Your task to perform on an android device: clear all cookies in the chrome app Image 0: 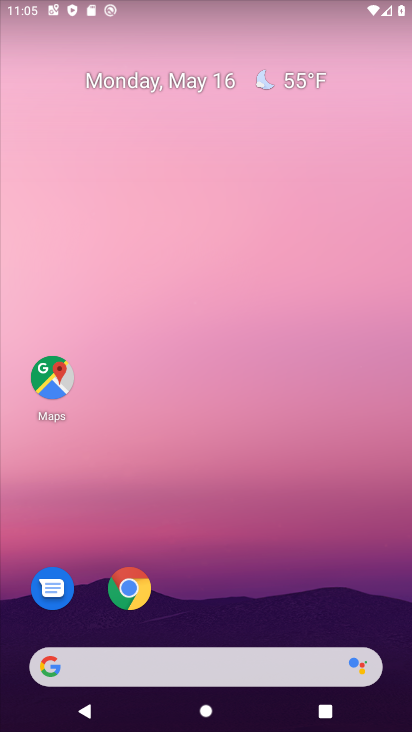
Step 0: drag from (355, 594) to (340, 143)
Your task to perform on an android device: clear all cookies in the chrome app Image 1: 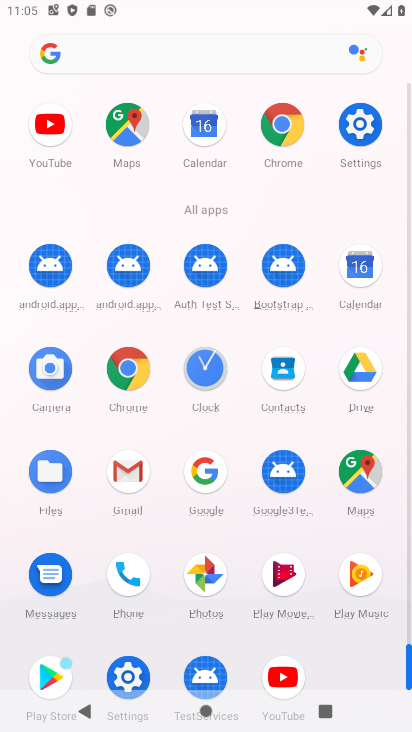
Step 1: click (288, 129)
Your task to perform on an android device: clear all cookies in the chrome app Image 2: 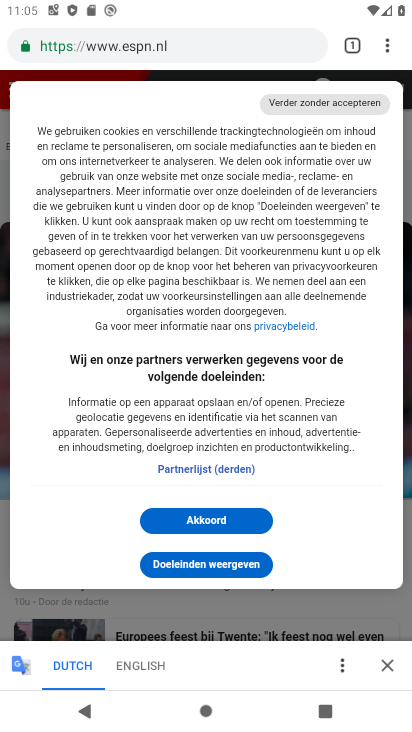
Step 2: click (388, 50)
Your task to perform on an android device: clear all cookies in the chrome app Image 3: 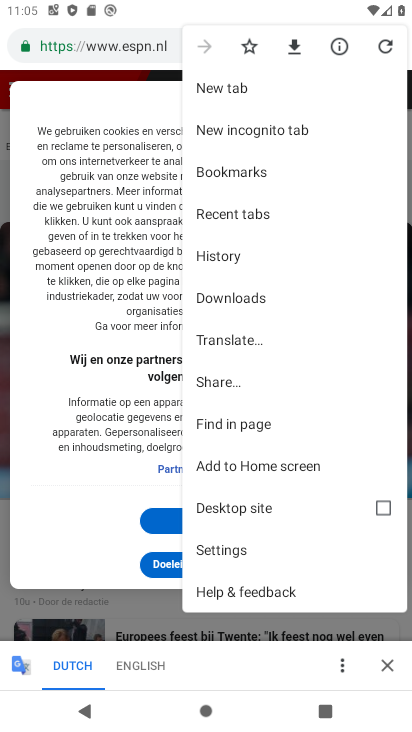
Step 3: click (222, 554)
Your task to perform on an android device: clear all cookies in the chrome app Image 4: 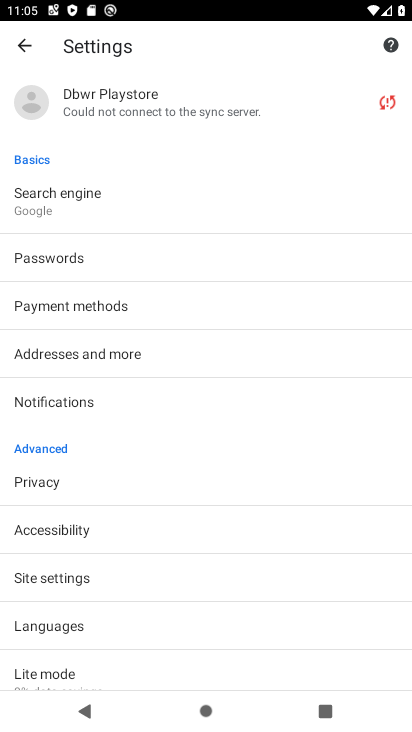
Step 4: click (222, 554)
Your task to perform on an android device: clear all cookies in the chrome app Image 5: 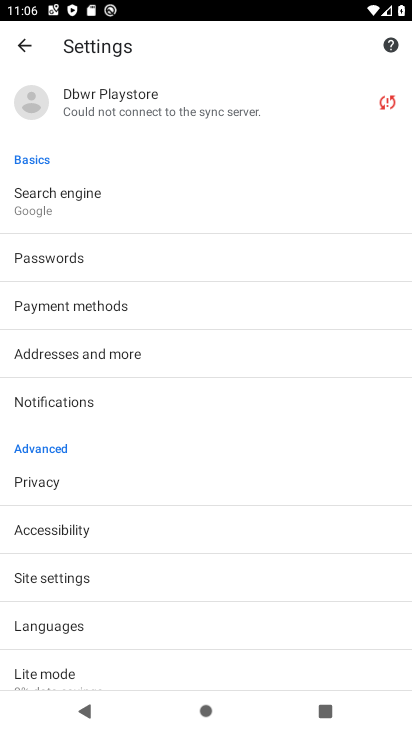
Step 5: click (120, 473)
Your task to perform on an android device: clear all cookies in the chrome app Image 6: 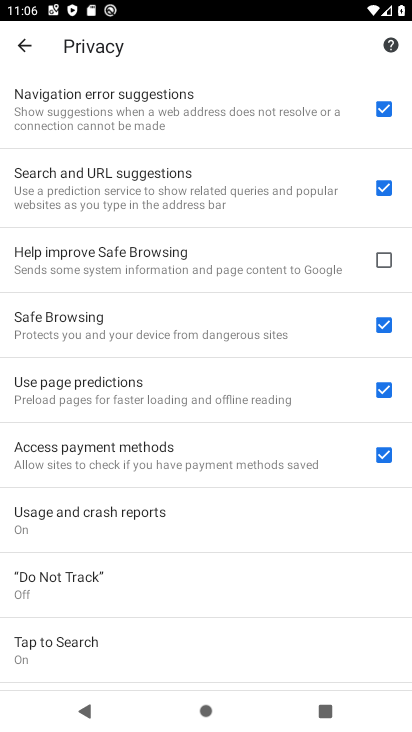
Step 6: drag from (269, 600) to (273, 389)
Your task to perform on an android device: clear all cookies in the chrome app Image 7: 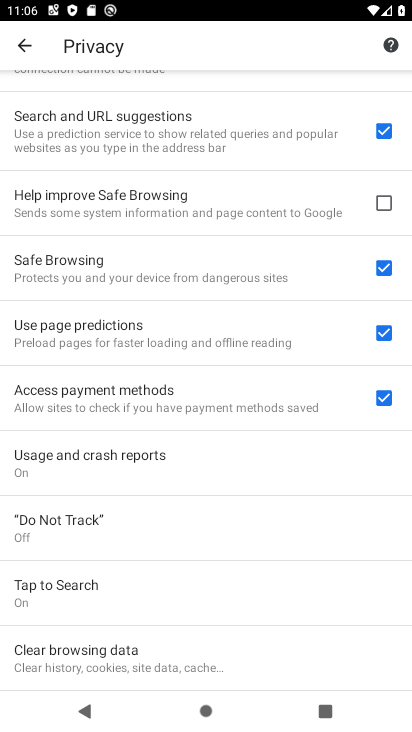
Step 7: drag from (222, 635) to (191, 412)
Your task to perform on an android device: clear all cookies in the chrome app Image 8: 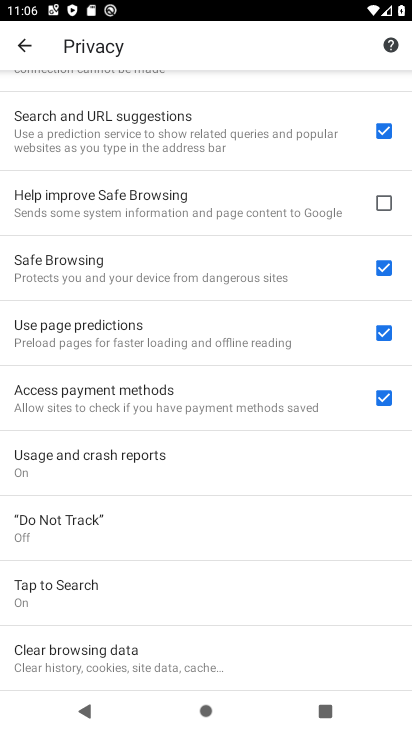
Step 8: drag from (188, 636) to (201, 555)
Your task to perform on an android device: clear all cookies in the chrome app Image 9: 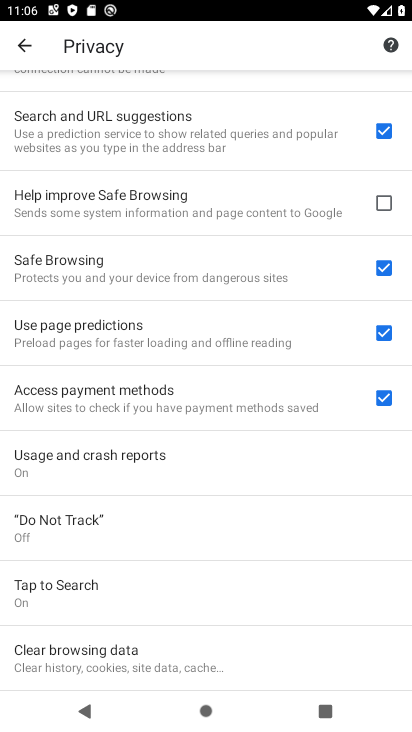
Step 9: click (164, 669)
Your task to perform on an android device: clear all cookies in the chrome app Image 10: 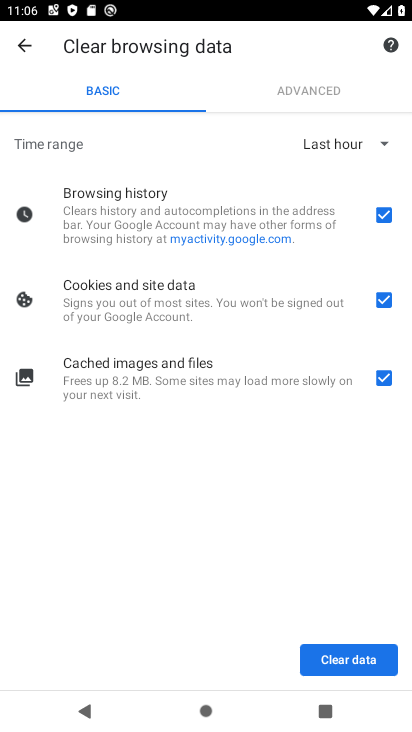
Step 10: click (348, 664)
Your task to perform on an android device: clear all cookies in the chrome app Image 11: 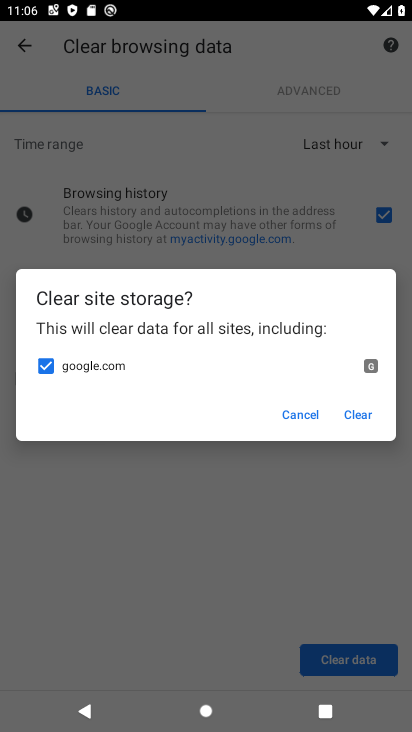
Step 11: click (362, 418)
Your task to perform on an android device: clear all cookies in the chrome app Image 12: 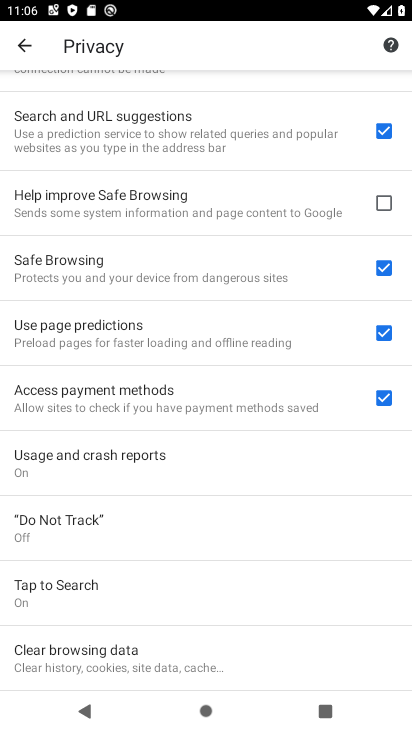
Step 12: task complete